Your task to perform on an android device: Open battery settings Image 0: 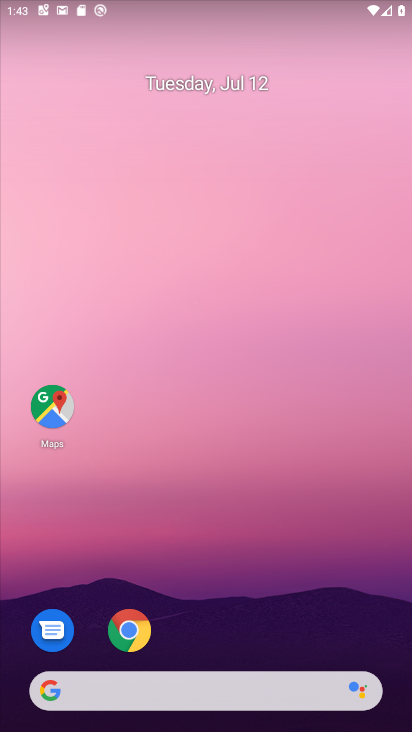
Step 0: drag from (219, 629) to (208, 191)
Your task to perform on an android device: Open battery settings Image 1: 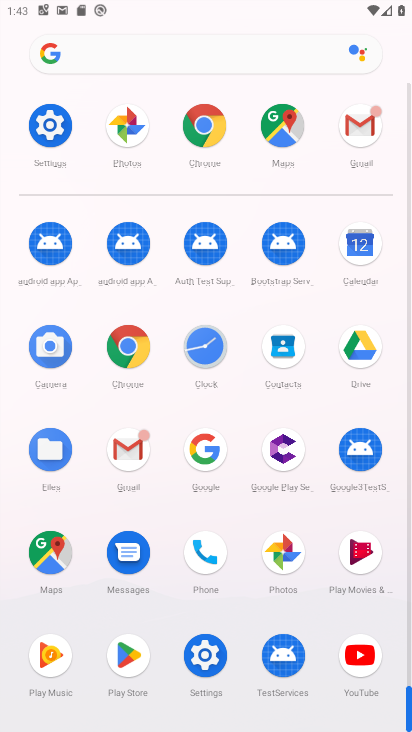
Step 1: drag from (203, 459) to (186, 228)
Your task to perform on an android device: Open battery settings Image 2: 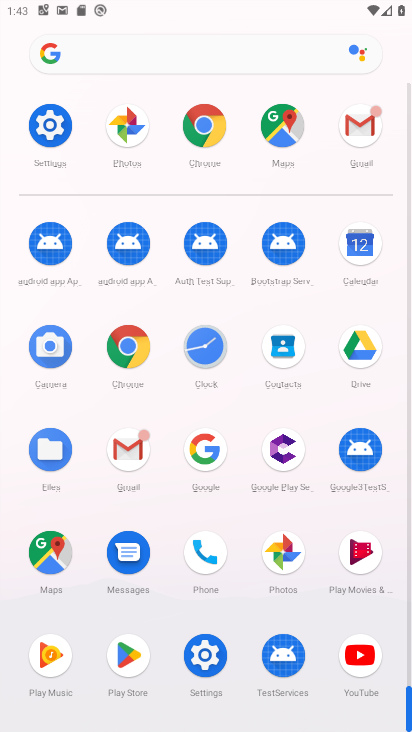
Step 2: click (48, 135)
Your task to perform on an android device: Open battery settings Image 3: 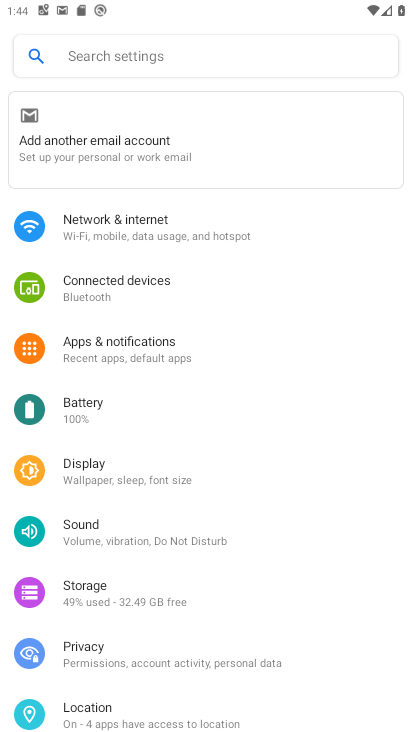
Step 3: click (121, 410)
Your task to perform on an android device: Open battery settings Image 4: 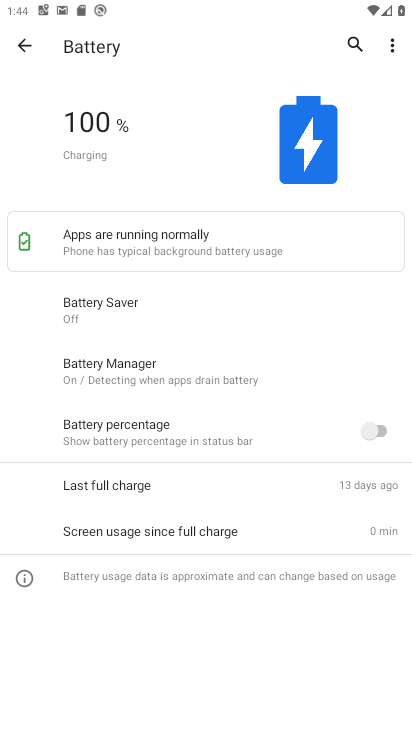
Step 4: task complete